Your task to perform on an android device: star an email in the gmail app Image 0: 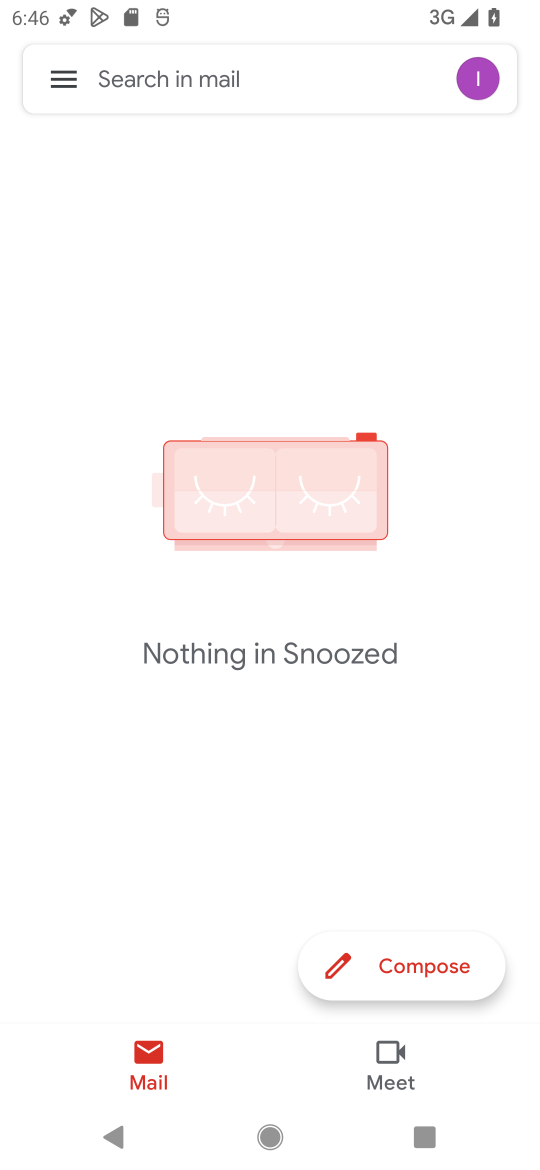
Step 0: click (61, 84)
Your task to perform on an android device: star an email in the gmail app Image 1: 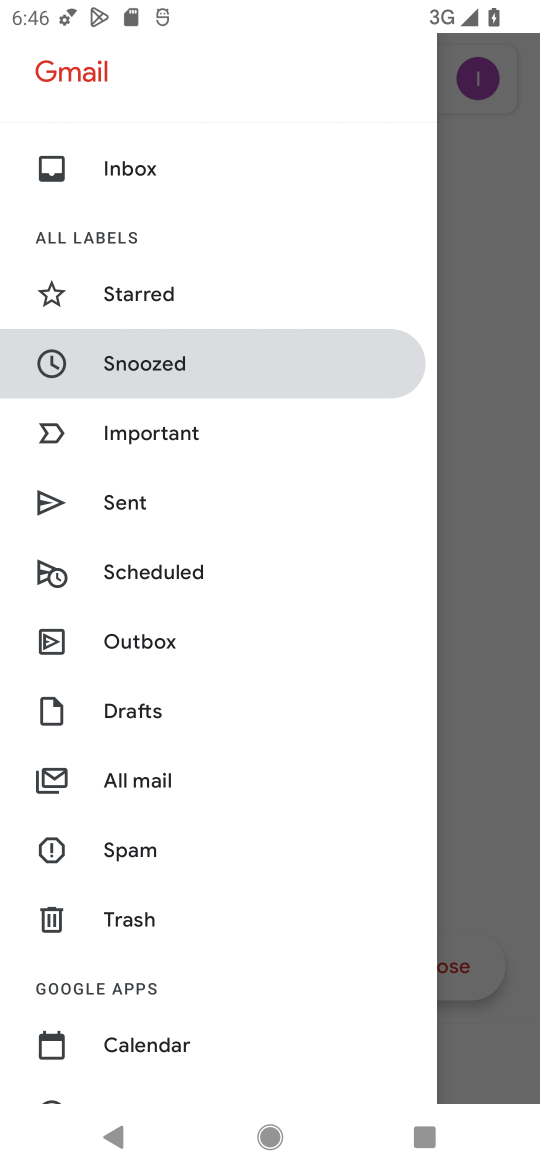
Step 1: click (140, 784)
Your task to perform on an android device: star an email in the gmail app Image 2: 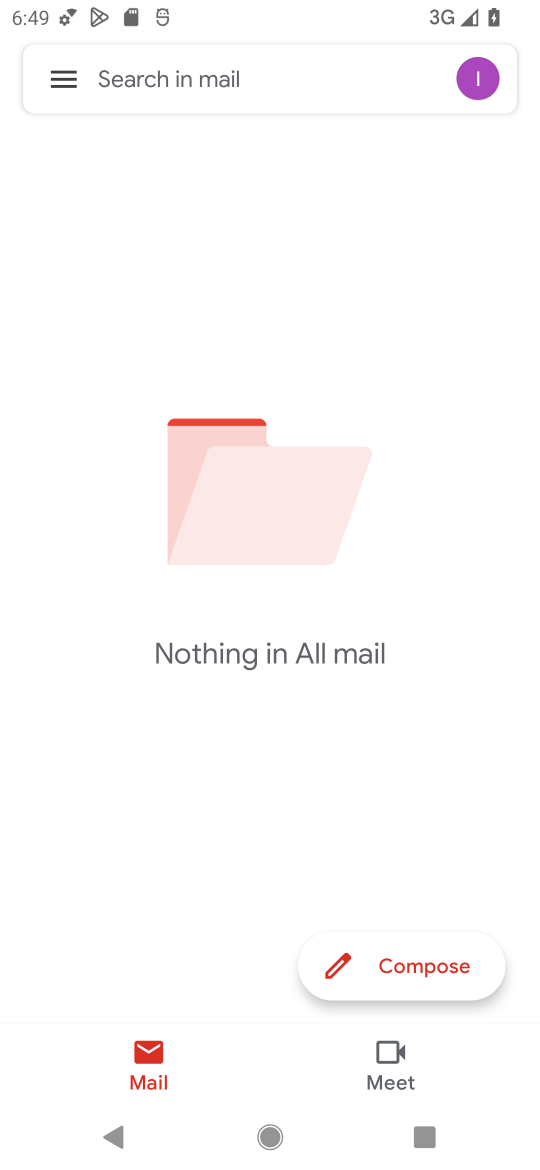
Step 2: task complete